Your task to perform on an android device: Open Google Chrome and click the shortcut for Amazon.com Image 0: 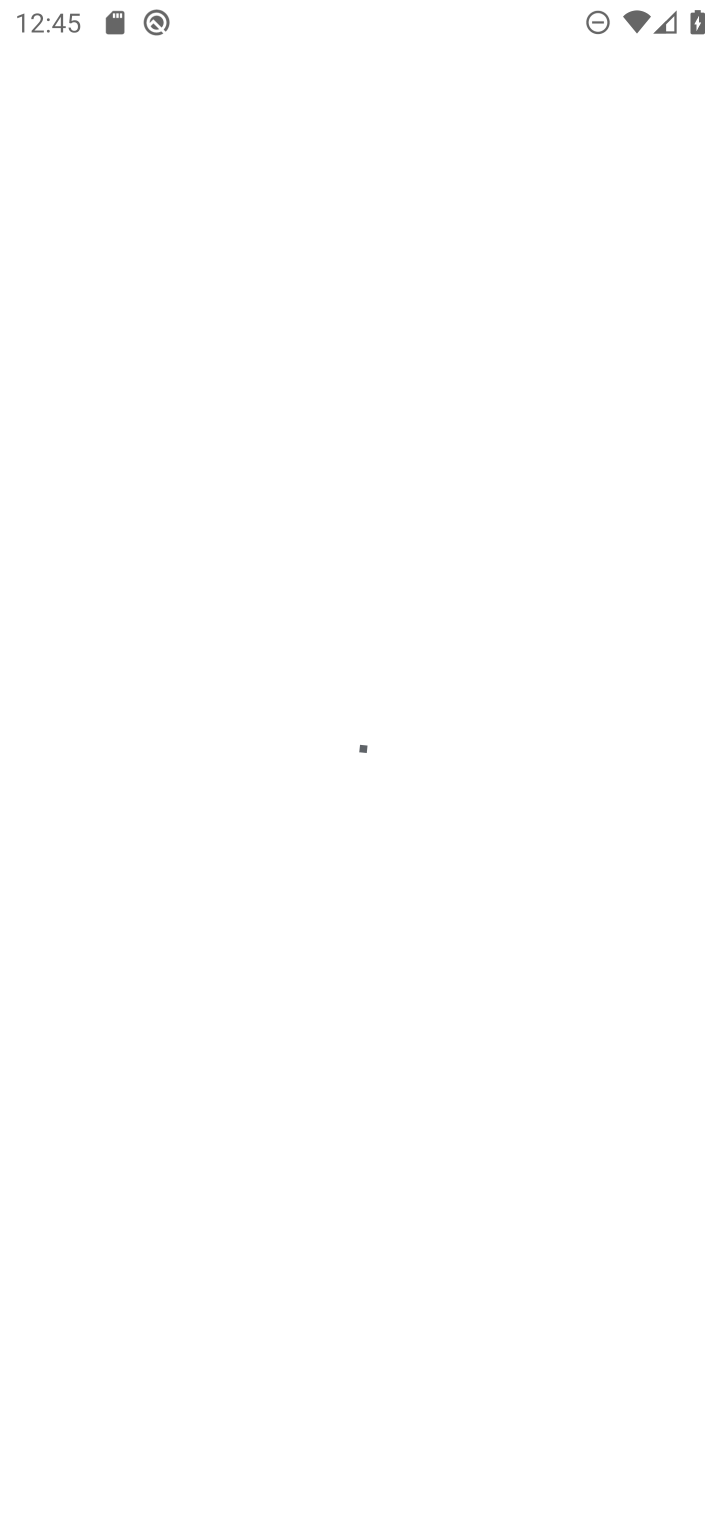
Step 0: press home button
Your task to perform on an android device: Open Google Chrome and click the shortcut for Amazon.com Image 1: 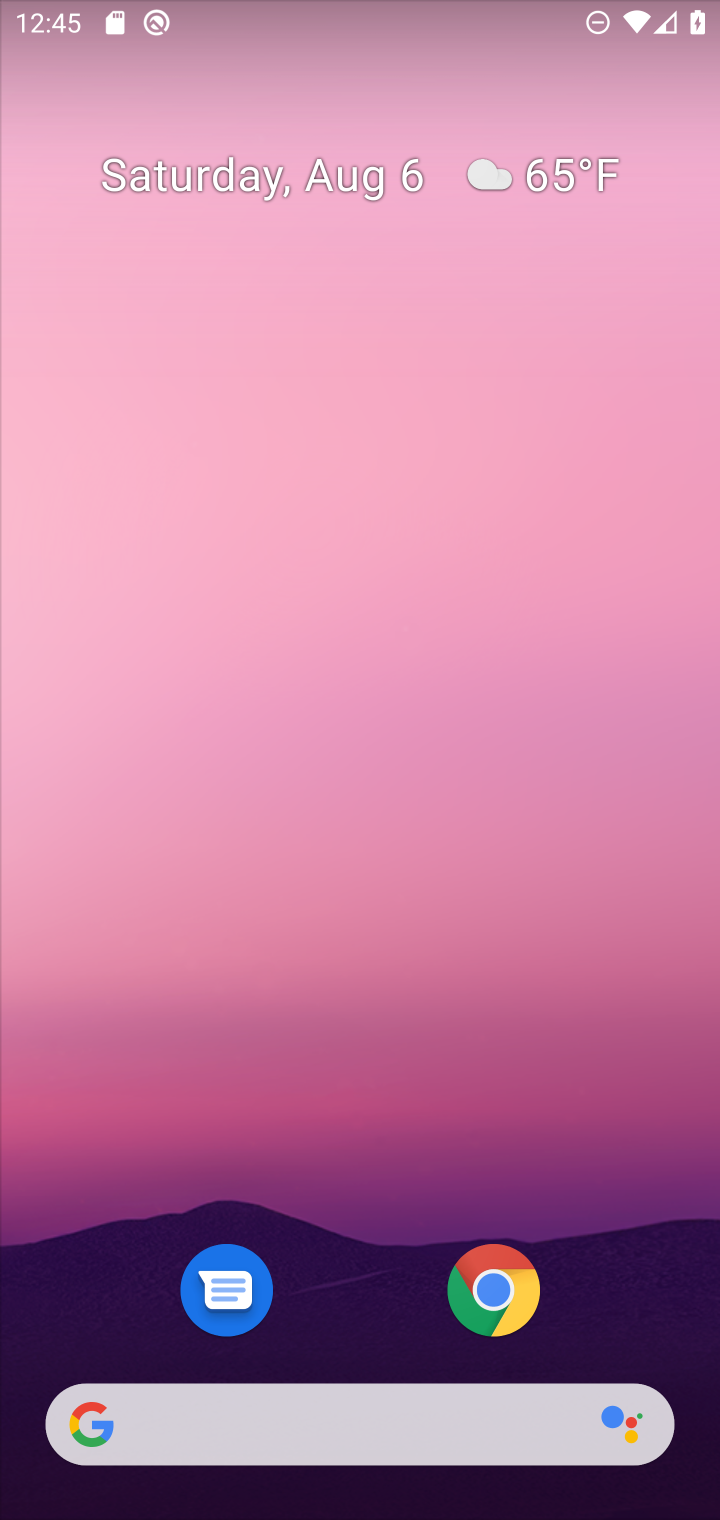
Step 1: click (489, 1300)
Your task to perform on an android device: Open Google Chrome and click the shortcut for Amazon.com Image 2: 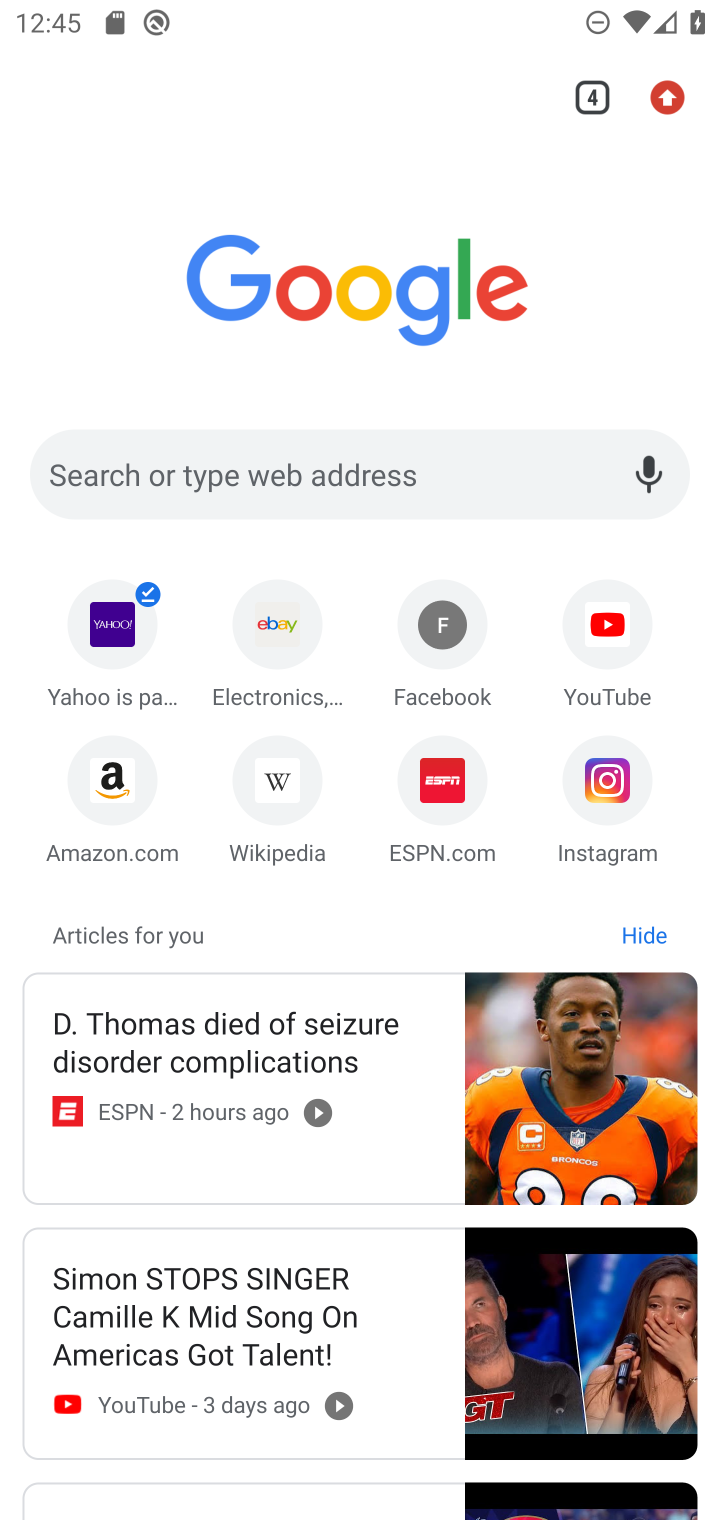
Step 2: click (63, 798)
Your task to perform on an android device: Open Google Chrome and click the shortcut for Amazon.com Image 3: 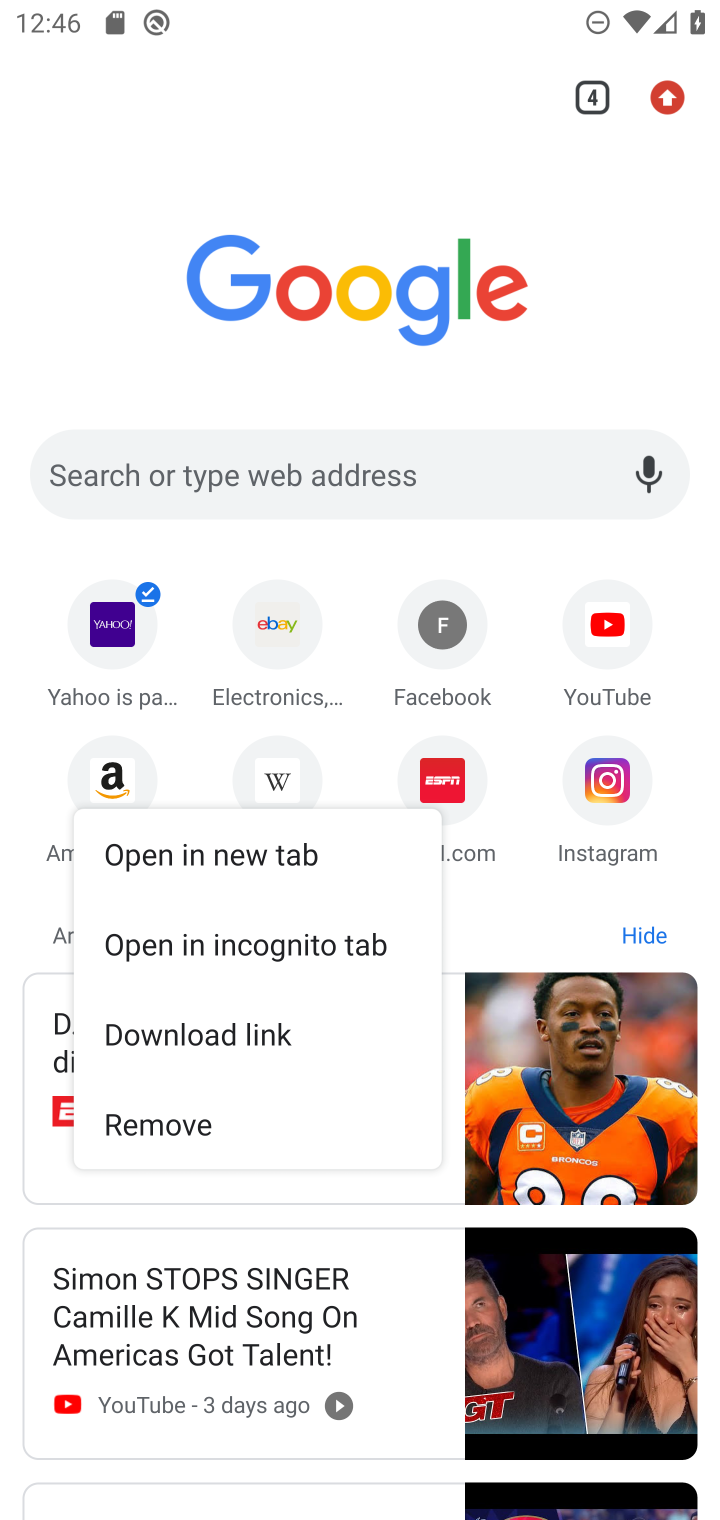
Step 3: click (80, 765)
Your task to perform on an android device: Open Google Chrome and click the shortcut for Amazon.com Image 4: 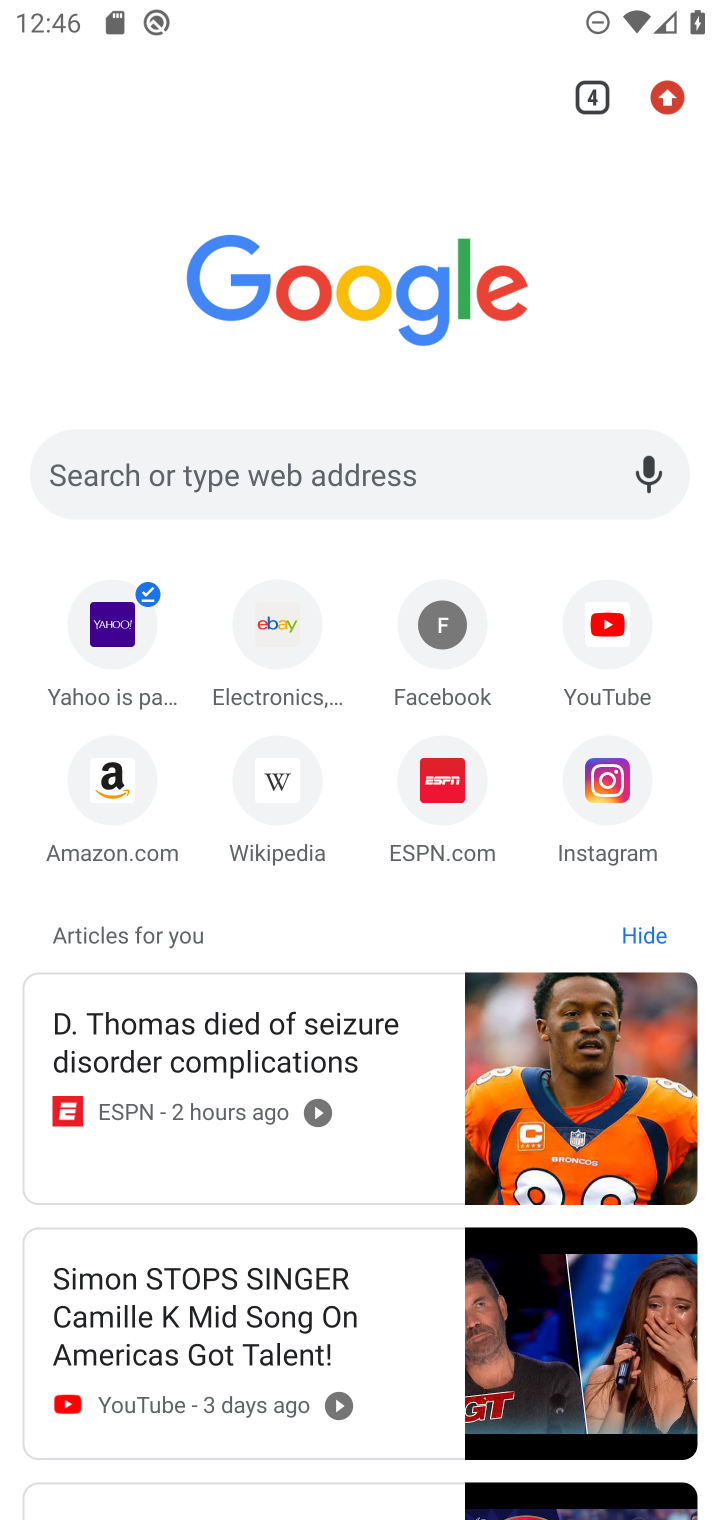
Step 4: click (133, 773)
Your task to perform on an android device: Open Google Chrome and click the shortcut for Amazon.com Image 5: 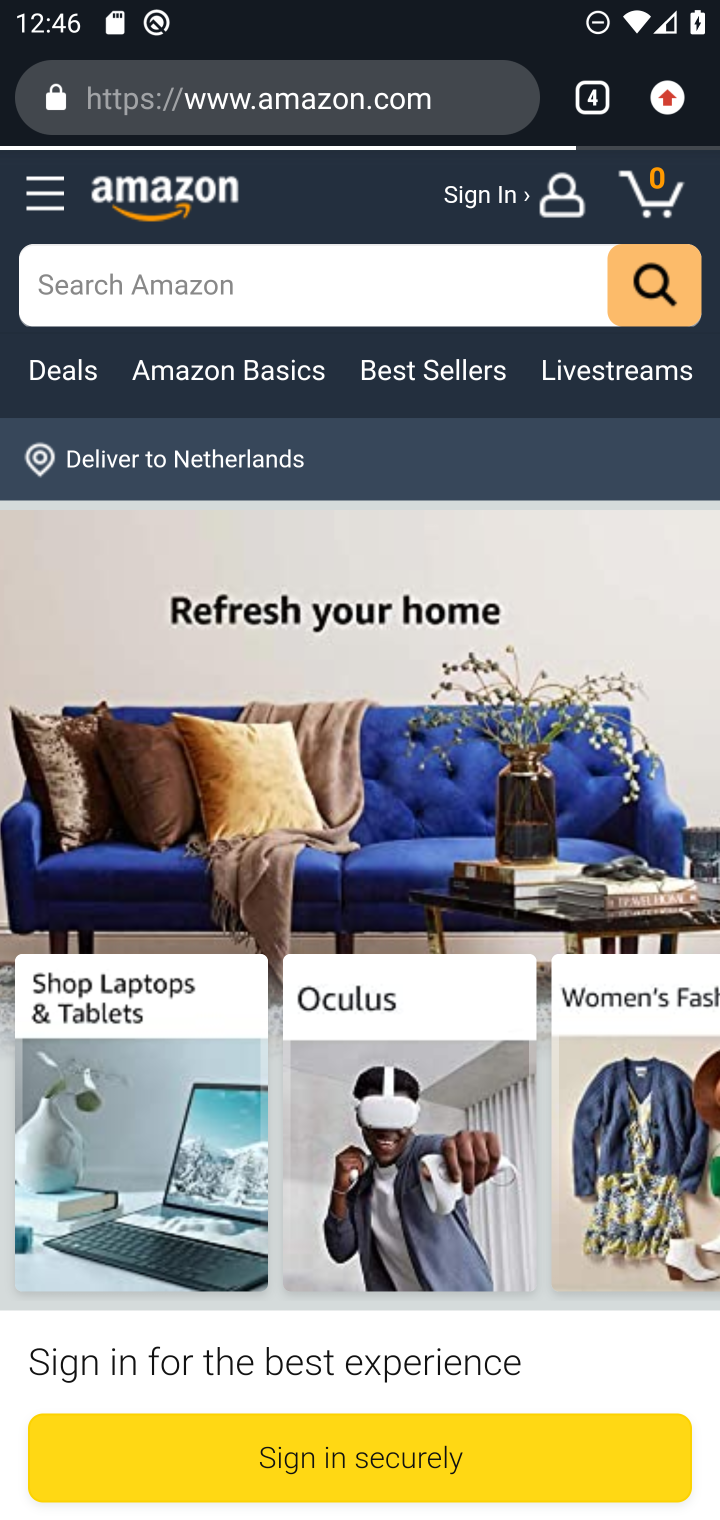
Step 5: task complete